Your task to perform on an android device: Do I have any events tomorrow? Image 0: 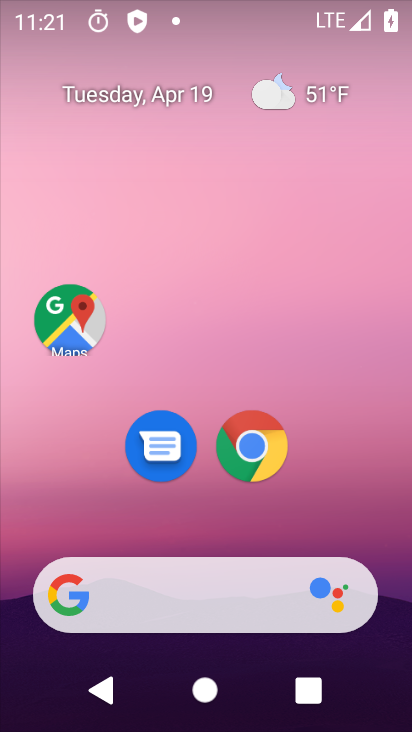
Step 0: drag from (381, 412) to (376, 175)
Your task to perform on an android device: Do I have any events tomorrow? Image 1: 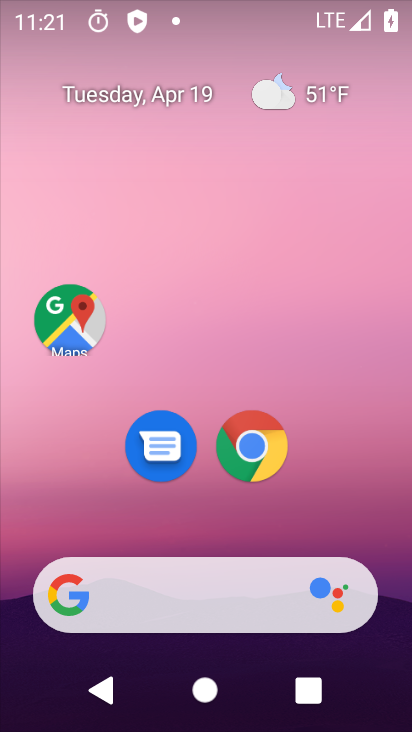
Step 1: drag from (382, 414) to (368, 289)
Your task to perform on an android device: Do I have any events tomorrow? Image 2: 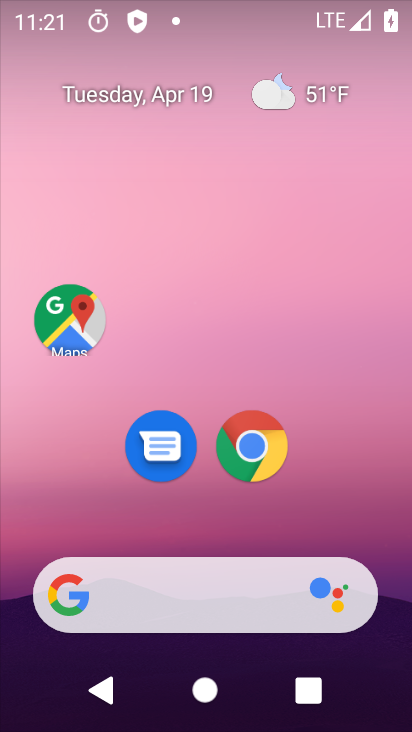
Step 2: drag from (354, 186) to (347, 86)
Your task to perform on an android device: Do I have any events tomorrow? Image 3: 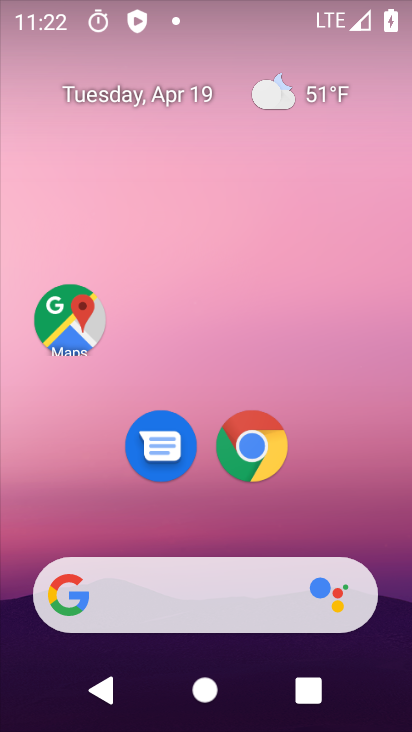
Step 3: drag from (376, 533) to (342, 184)
Your task to perform on an android device: Do I have any events tomorrow? Image 4: 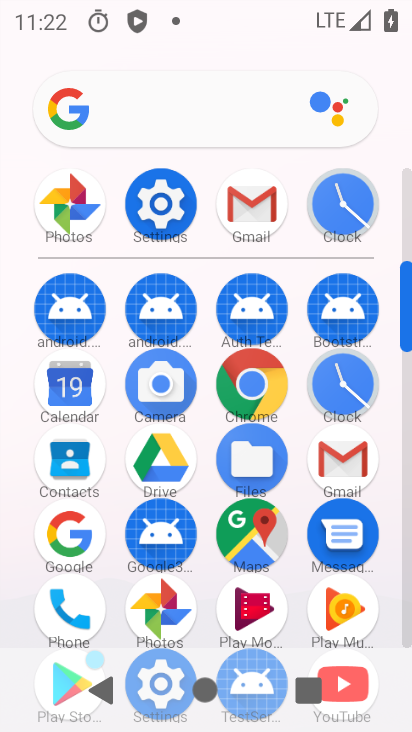
Step 4: click (67, 393)
Your task to perform on an android device: Do I have any events tomorrow? Image 5: 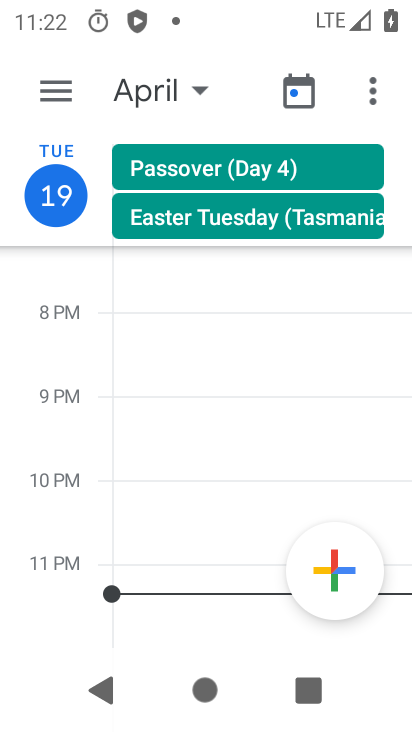
Step 5: click (191, 86)
Your task to perform on an android device: Do I have any events tomorrow? Image 6: 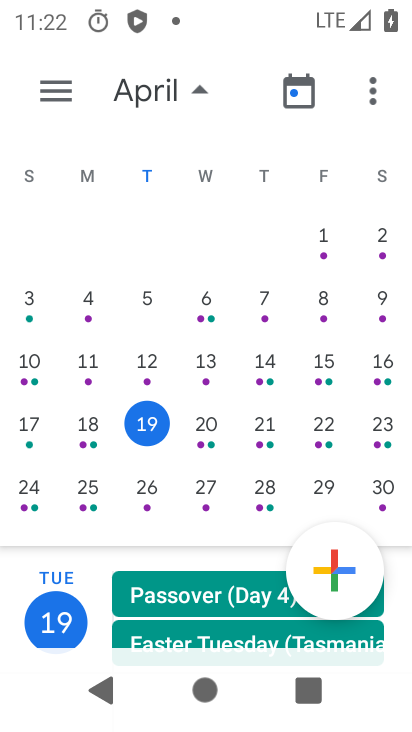
Step 6: click (210, 429)
Your task to perform on an android device: Do I have any events tomorrow? Image 7: 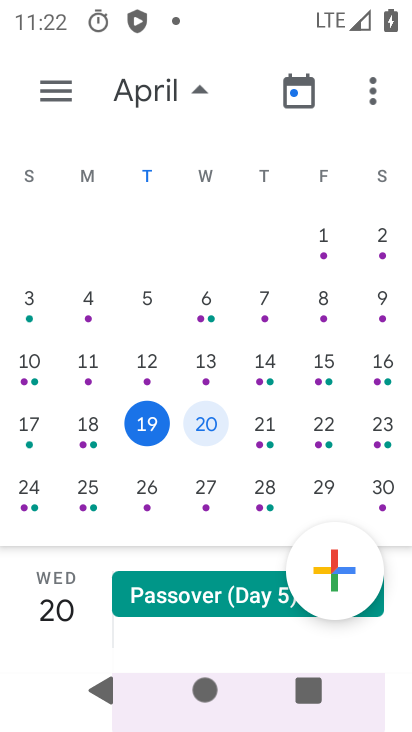
Step 7: task complete